Your task to perform on an android device: snooze an email in the gmail app Image 0: 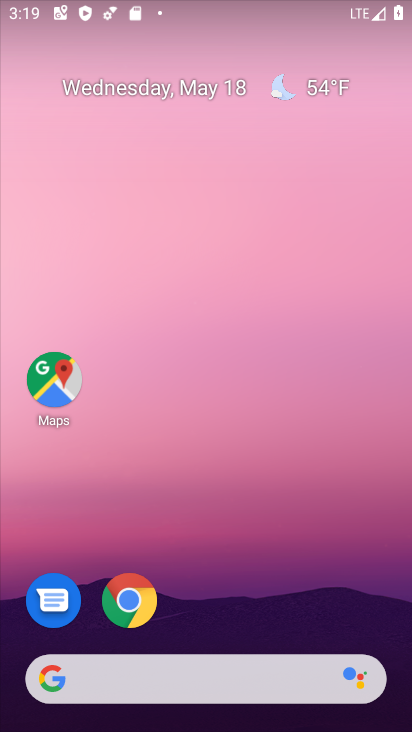
Step 0: press home button
Your task to perform on an android device: snooze an email in the gmail app Image 1: 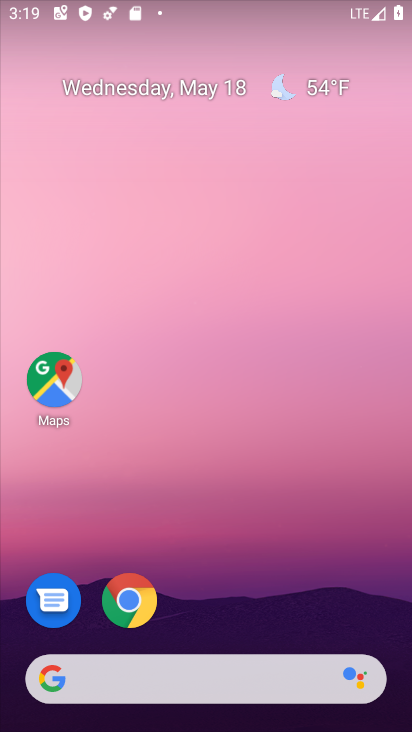
Step 1: drag from (183, 677) to (332, 126)
Your task to perform on an android device: snooze an email in the gmail app Image 2: 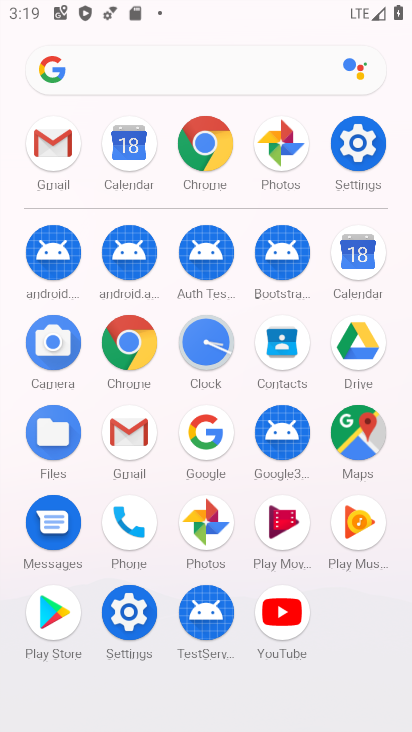
Step 2: click (55, 161)
Your task to perform on an android device: snooze an email in the gmail app Image 3: 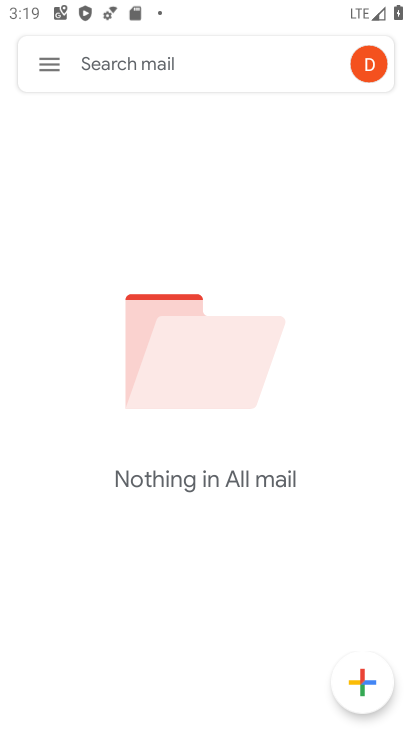
Step 3: task complete